Your task to perform on an android device: Turn on the flashlight Image 0: 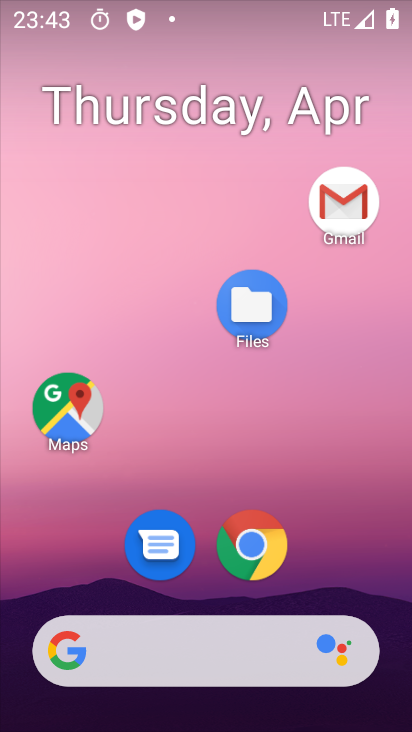
Step 0: drag from (203, 472) to (178, 74)
Your task to perform on an android device: Turn on the flashlight Image 1: 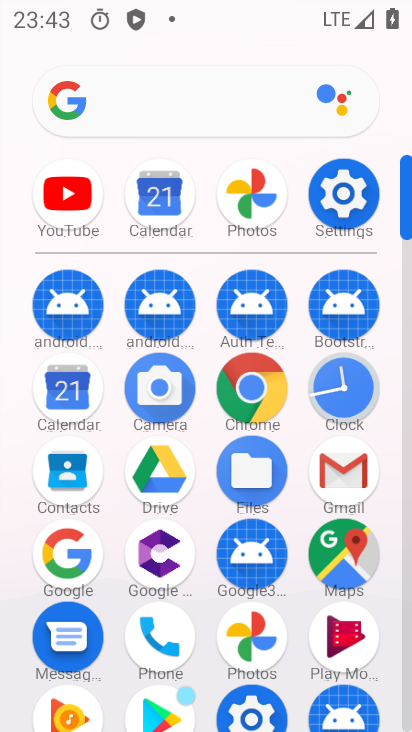
Step 1: click (340, 215)
Your task to perform on an android device: Turn on the flashlight Image 2: 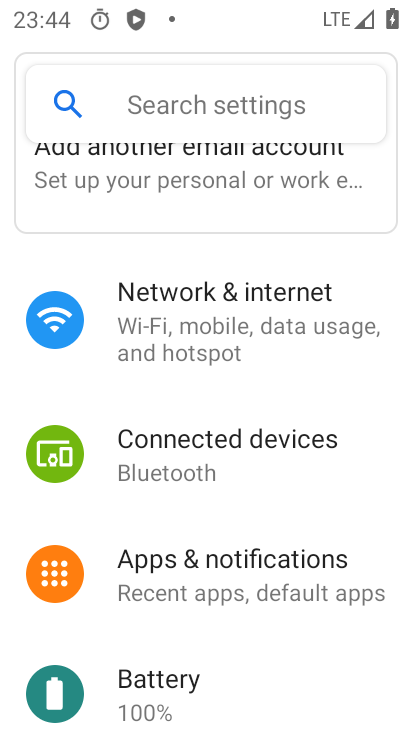
Step 2: task complete